Your task to perform on an android device: toggle show notifications on the lock screen Image 0: 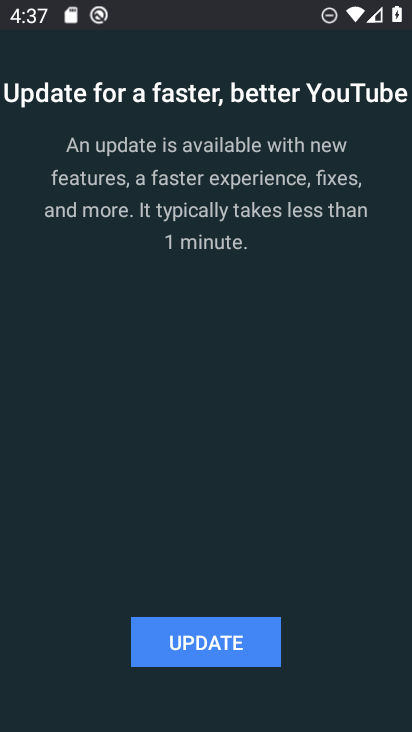
Step 0: press home button
Your task to perform on an android device: toggle show notifications on the lock screen Image 1: 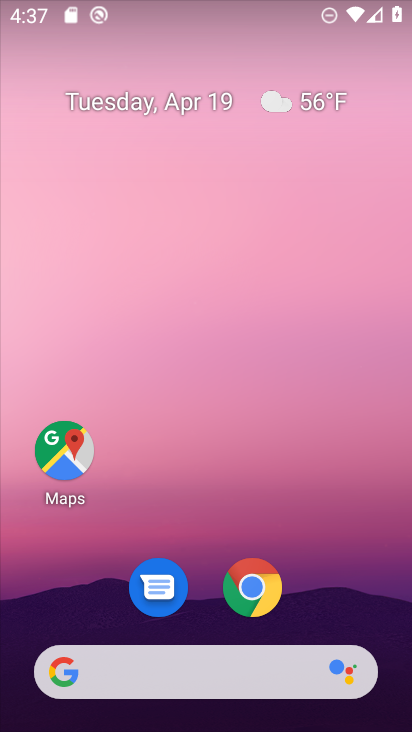
Step 1: drag from (211, 642) to (202, 101)
Your task to perform on an android device: toggle show notifications on the lock screen Image 2: 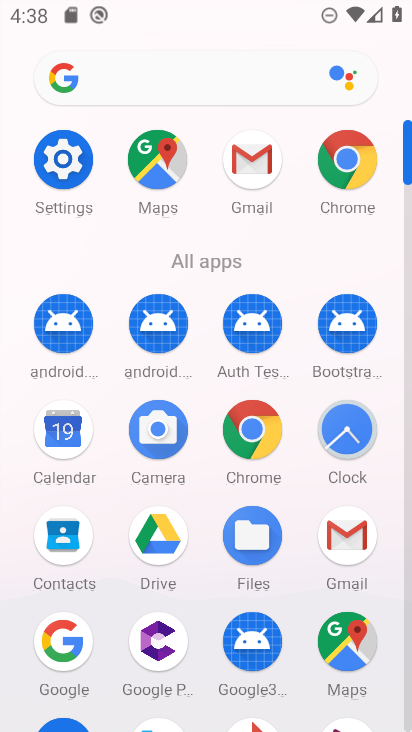
Step 2: click (63, 157)
Your task to perform on an android device: toggle show notifications on the lock screen Image 3: 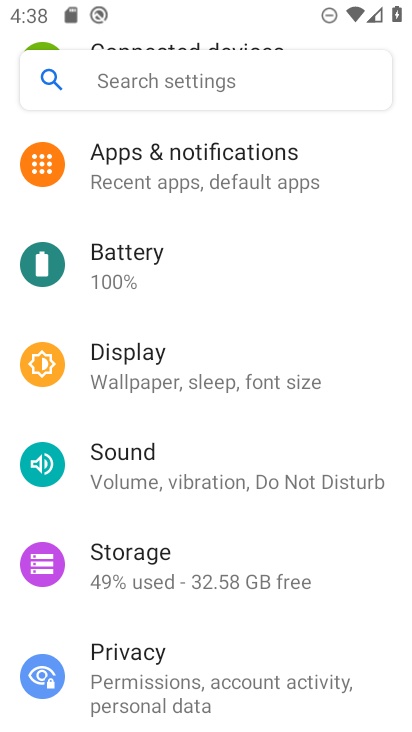
Step 3: click (198, 173)
Your task to perform on an android device: toggle show notifications on the lock screen Image 4: 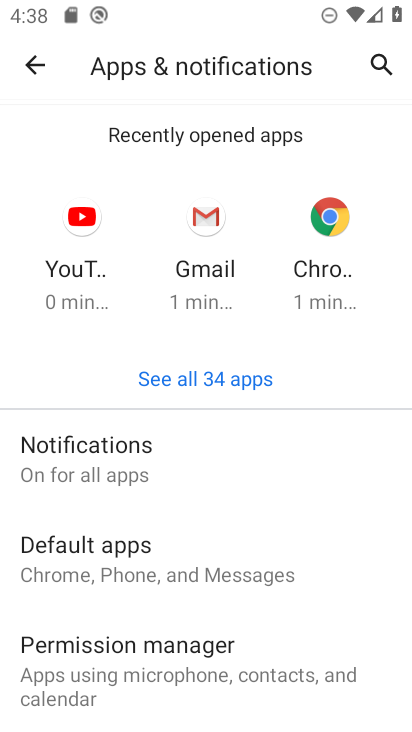
Step 4: click (82, 455)
Your task to perform on an android device: toggle show notifications on the lock screen Image 5: 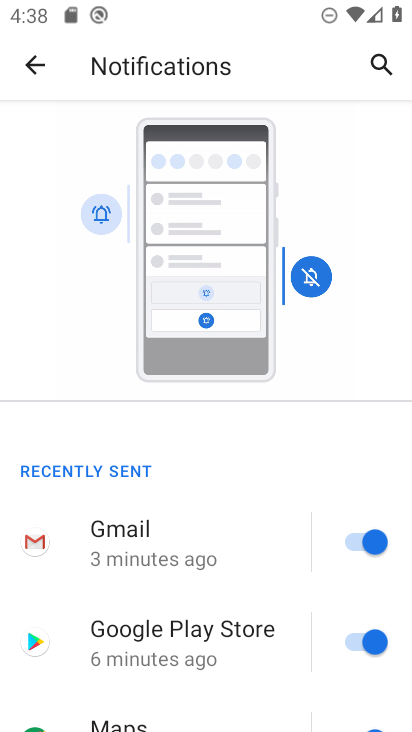
Step 5: drag from (199, 701) to (196, 319)
Your task to perform on an android device: toggle show notifications on the lock screen Image 6: 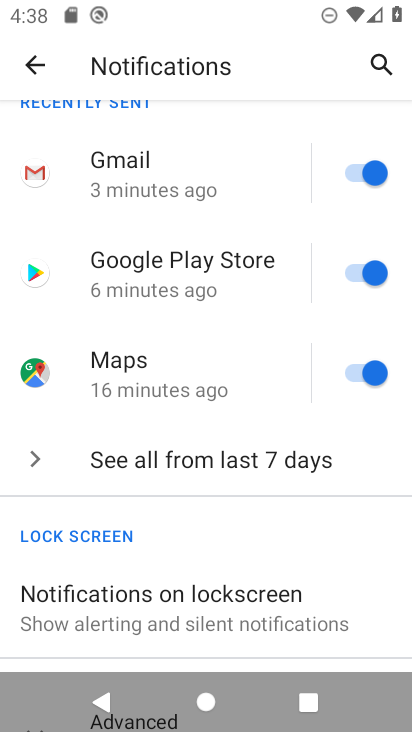
Step 6: drag from (222, 661) to (214, 319)
Your task to perform on an android device: toggle show notifications on the lock screen Image 7: 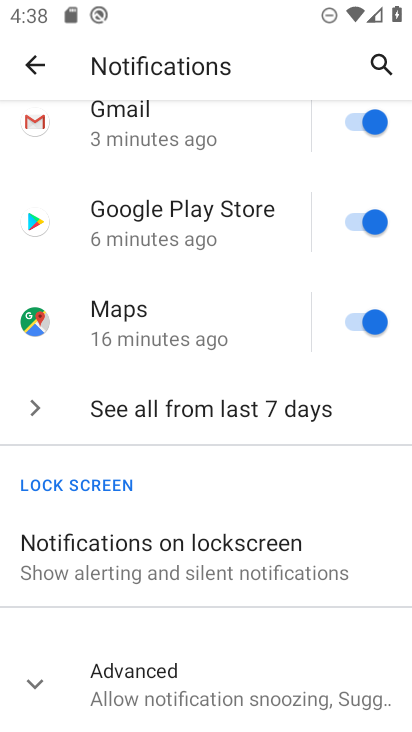
Step 7: click (176, 558)
Your task to perform on an android device: toggle show notifications on the lock screen Image 8: 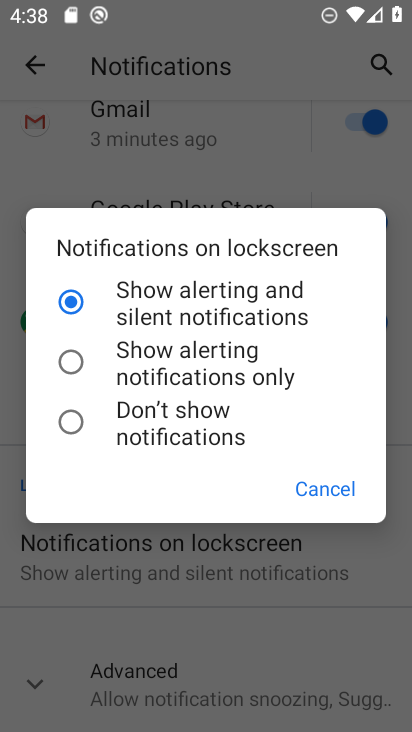
Step 8: click (72, 422)
Your task to perform on an android device: toggle show notifications on the lock screen Image 9: 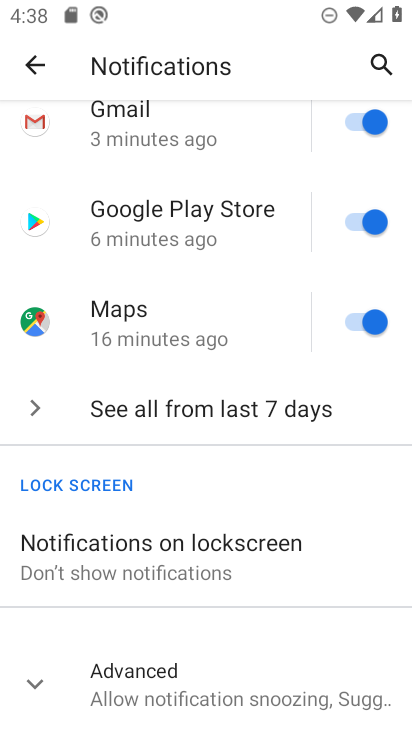
Step 9: task complete